Your task to perform on an android device: Search for sushi restaurants on Maps Image 0: 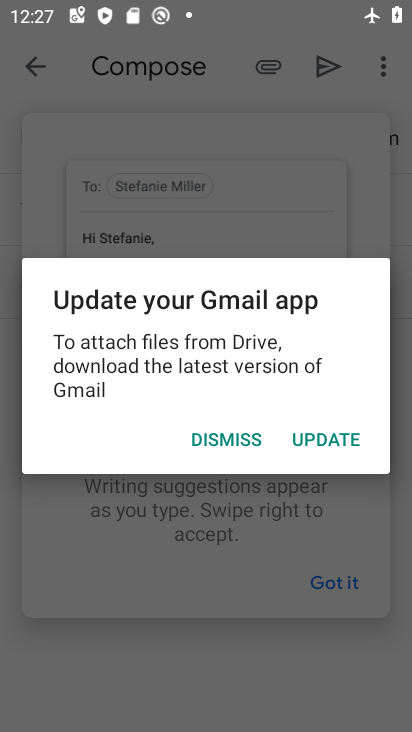
Step 0: press home button
Your task to perform on an android device: Search for sushi restaurants on Maps Image 1: 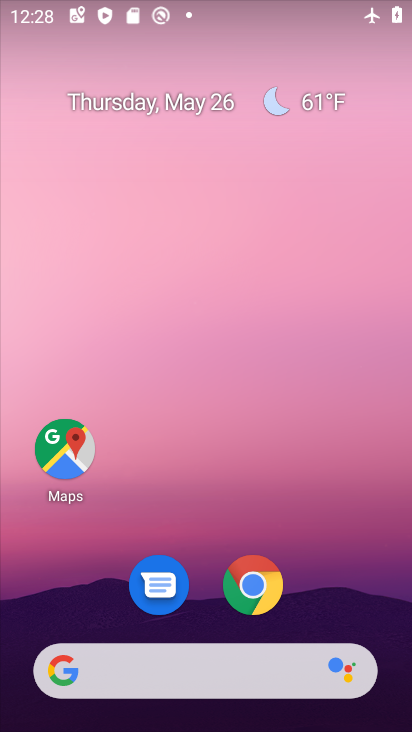
Step 1: click (56, 442)
Your task to perform on an android device: Search for sushi restaurants on Maps Image 2: 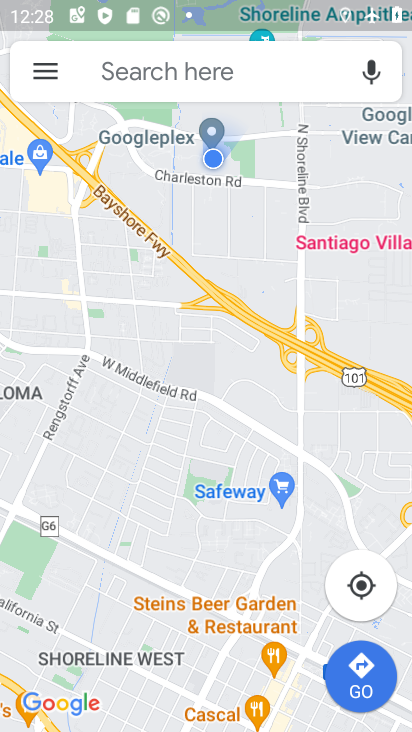
Step 2: click (200, 64)
Your task to perform on an android device: Search for sushi restaurants on Maps Image 3: 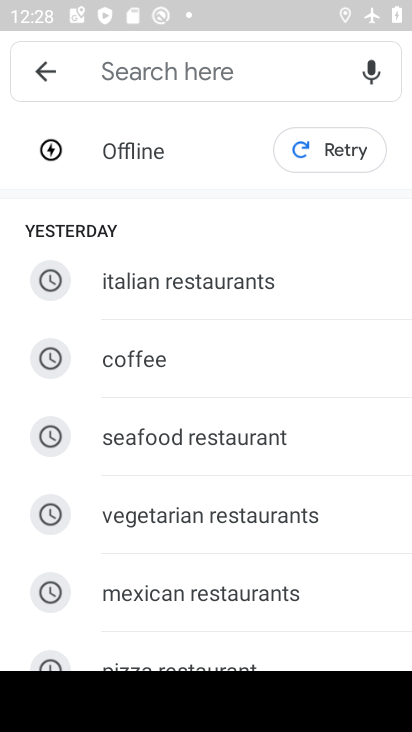
Step 3: drag from (211, 489) to (214, 262)
Your task to perform on an android device: Search for sushi restaurants on Maps Image 4: 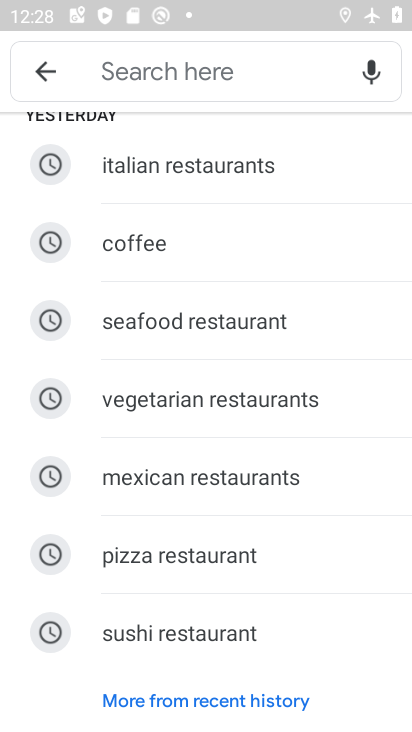
Step 4: click (196, 622)
Your task to perform on an android device: Search for sushi restaurants on Maps Image 5: 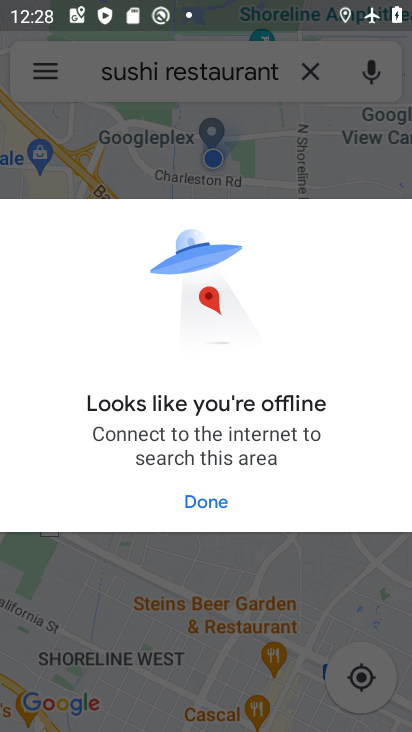
Step 5: task complete